Your task to perform on an android device: Search for Mexican restaurants on Maps Image 0: 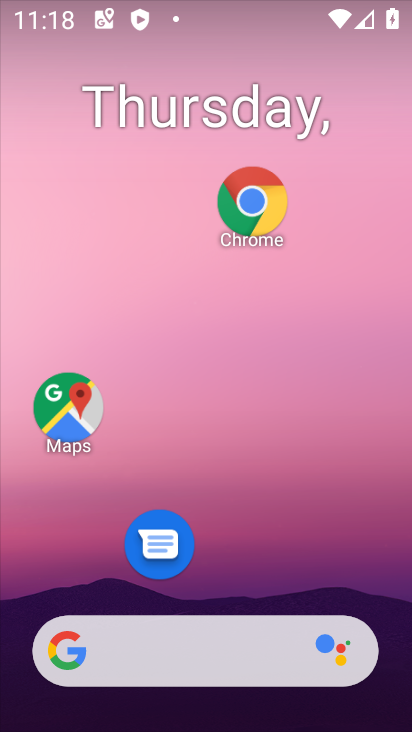
Step 0: click (68, 403)
Your task to perform on an android device: Search for Mexican restaurants on Maps Image 1: 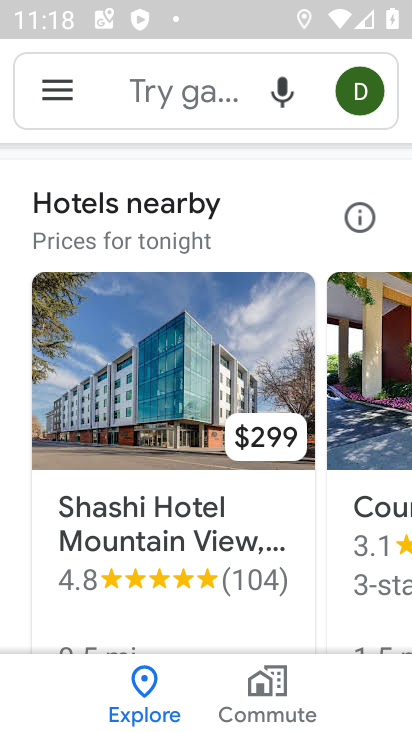
Step 1: click (149, 86)
Your task to perform on an android device: Search for Mexican restaurants on Maps Image 2: 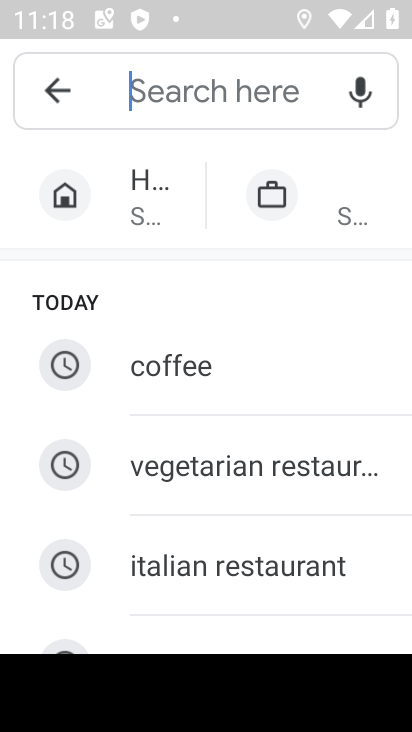
Step 2: click (186, 661)
Your task to perform on an android device: Search for Mexican restaurants on Maps Image 3: 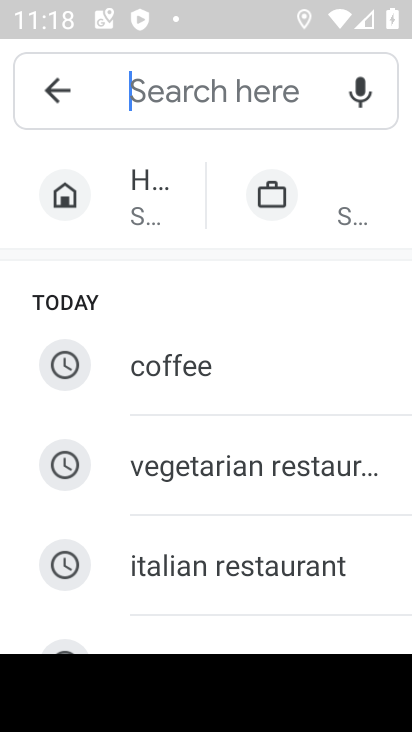
Step 3: drag from (167, 571) to (176, 228)
Your task to perform on an android device: Search for Mexican restaurants on Maps Image 4: 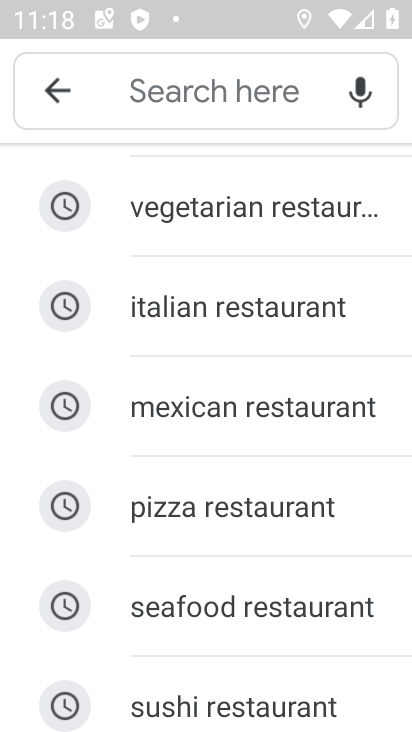
Step 4: click (201, 400)
Your task to perform on an android device: Search for Mexican restaurants on Maps Image 5: 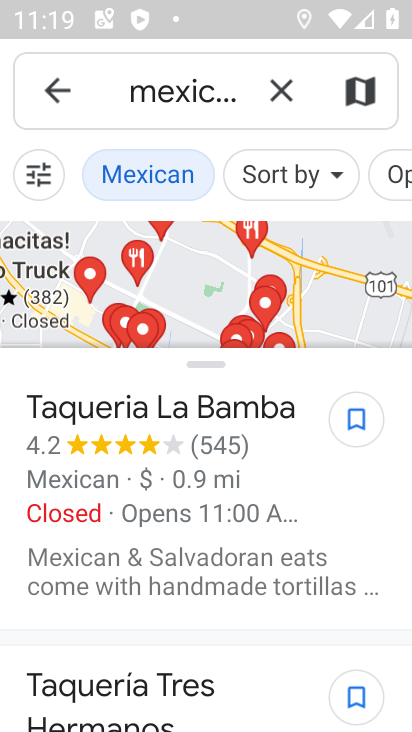
Step 5: task complete